Your task to perform on an android device: set the timer Image 0: 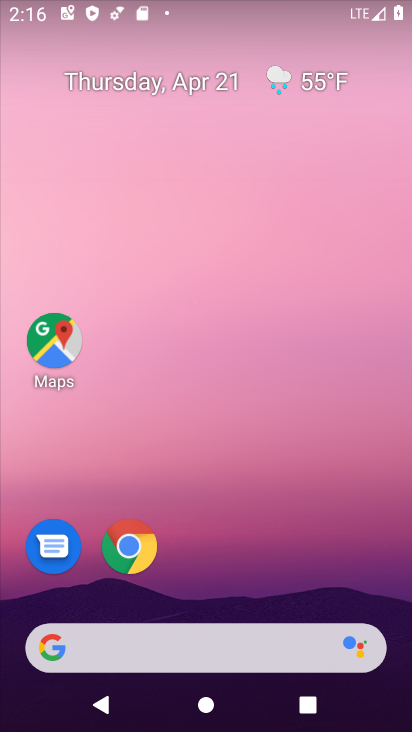
Step 0: drag from (308, 565) to (265, 110)
Your task to perform on an android device: set the timer Image 1: 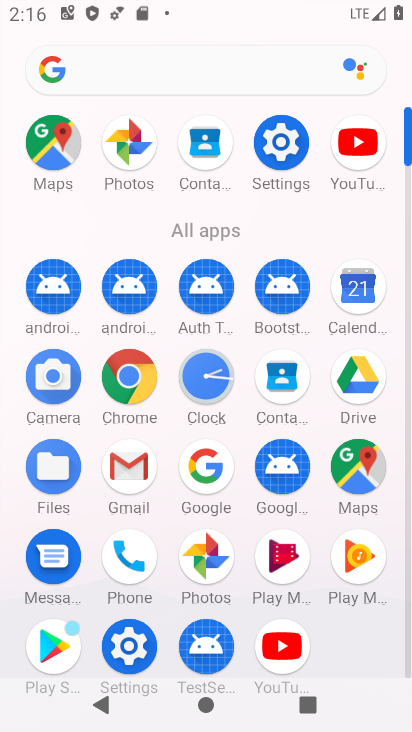
Step 1: click (221, 356)
Your task to perform on an android device: set the timer Image 2: 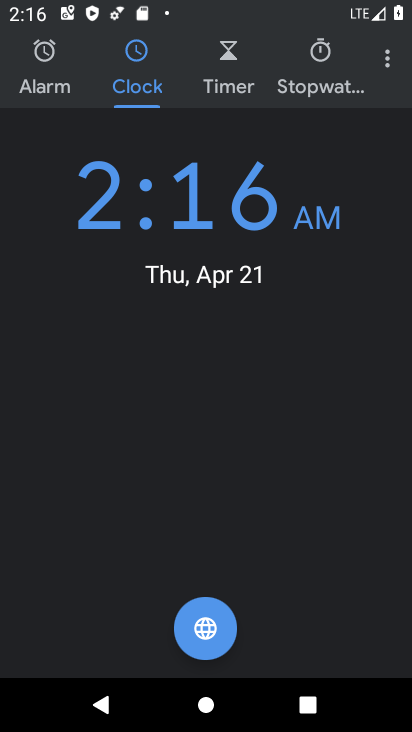
Step 2: click (241, 98)
Your task to perform on an android device: set the timer Image 3: 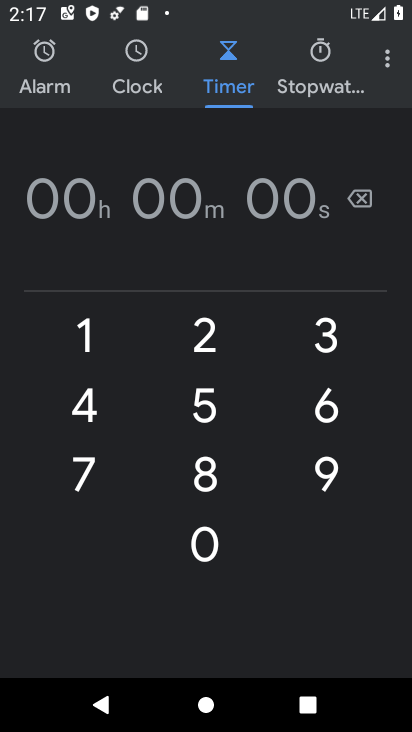
Step 3: click (217, 345)
Your task to perform on an android device: set the timer Image 4: 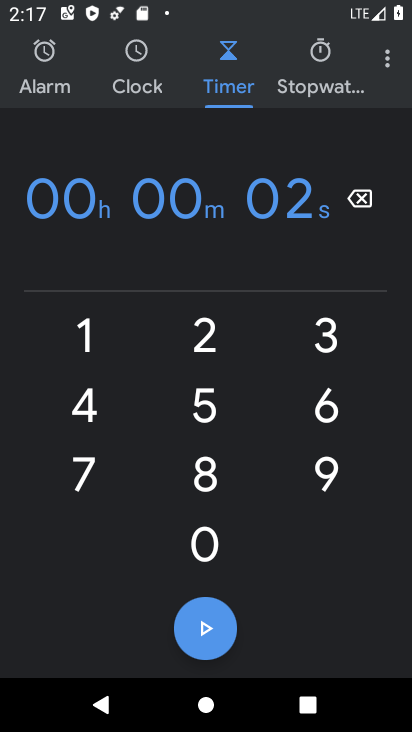
Step 4: click (196, 621)
Your task to perform on an android device: set the timer Image 5: 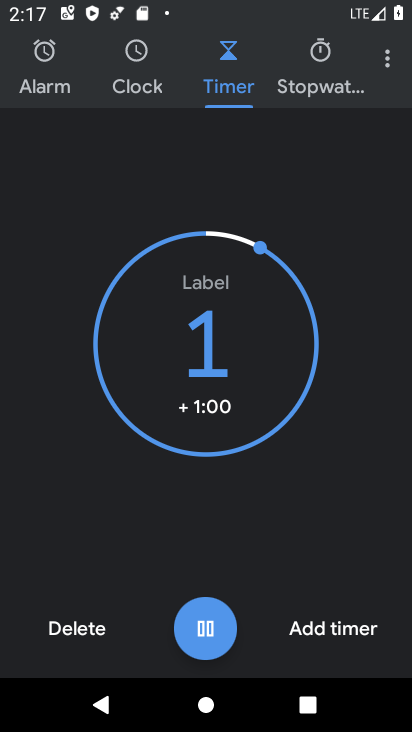
Step 5: task complete